Your task to perform on an android device: change text size in settings app Image 0: 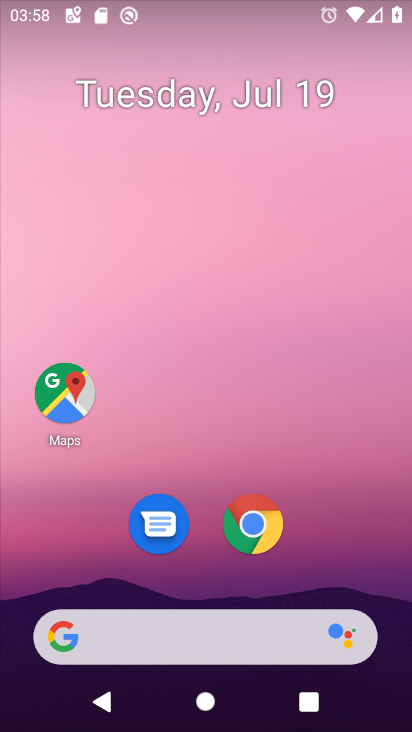
Step 0: drag from (313, 530) to (321, 55)
Your task to perform on an android device: change text size in settings app Image 1: 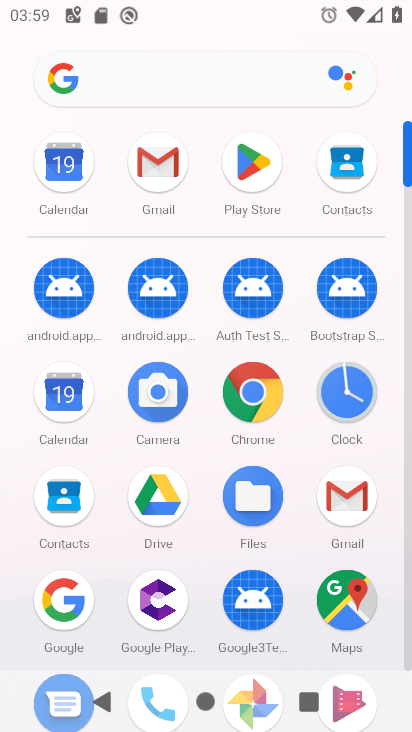
Step 1: drag from (287, 530) to (319, 129)
Your task to perform on an android device: change text size in settings app Image 2: 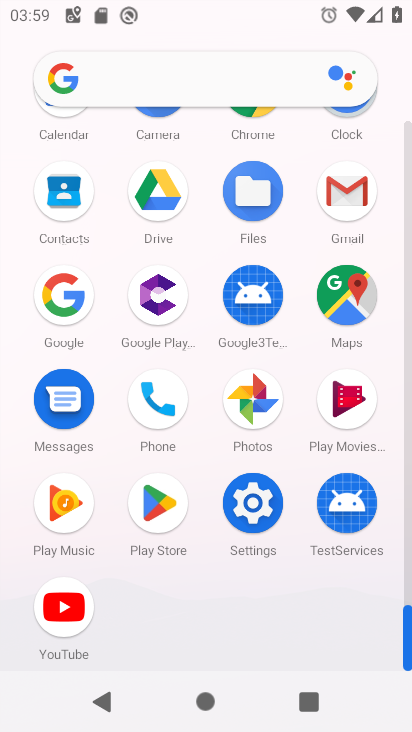
Step 2: click (242, 501)
Your task to perform on an android device: change text size in settings app Image 3: 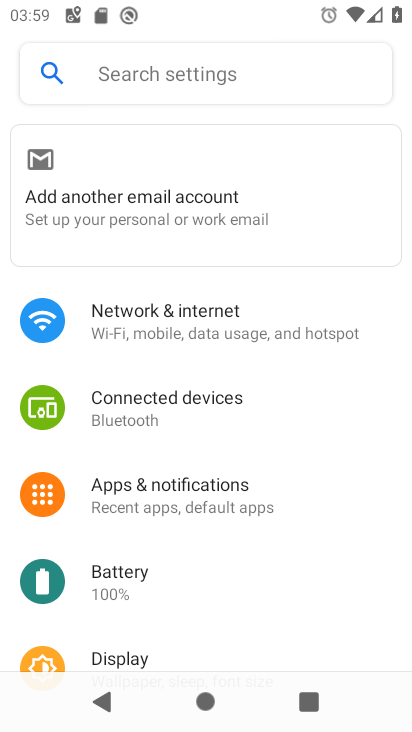
Step 3: drag from (241, 585) to (275, 254)
Your task to perform on an android device: change text size in settings app Image 4: 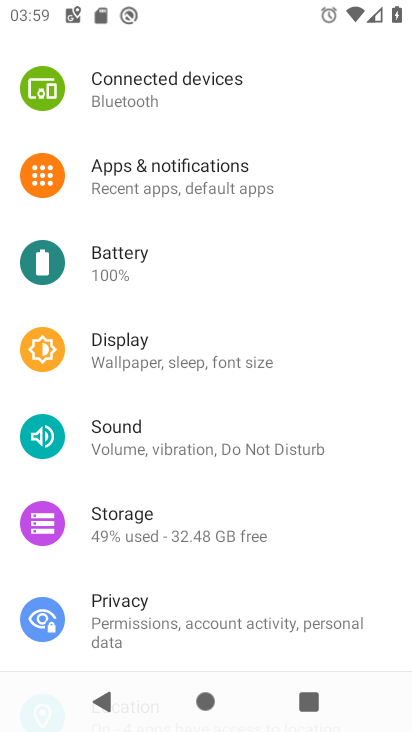
Step 4: click (229, 348)
Your task to perform on an android device: change text size in settings app Image 5: 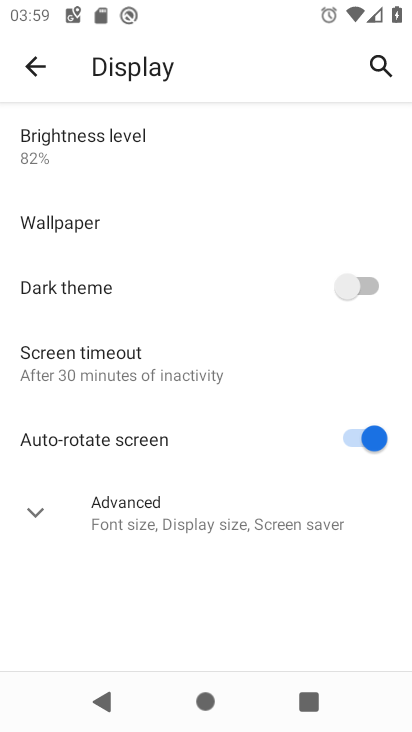
Step 5: click (32, 509)
Your task to perform on an android device: change text size in settings app Image 6: 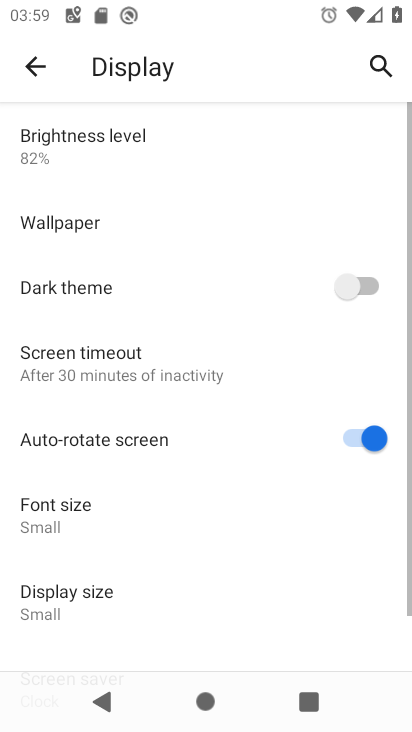
Step 6: drag from (177, 388) to (194, 169)
Your task to perform on an android device: change text size in settings app Image 7: 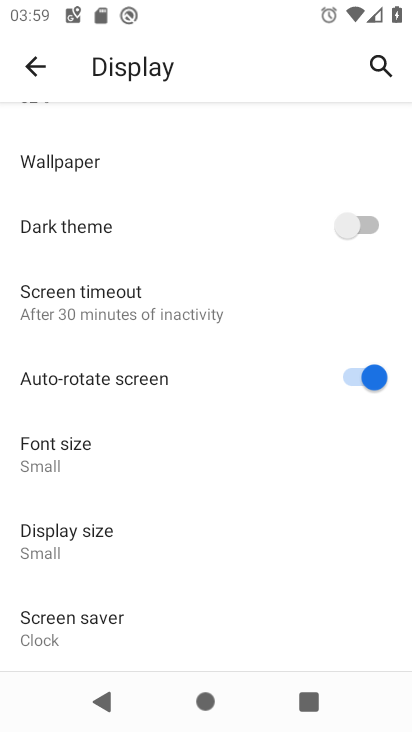
Step 7: click (73, 453)
Your task to perform on an android device: change text size in settings app Image 8: 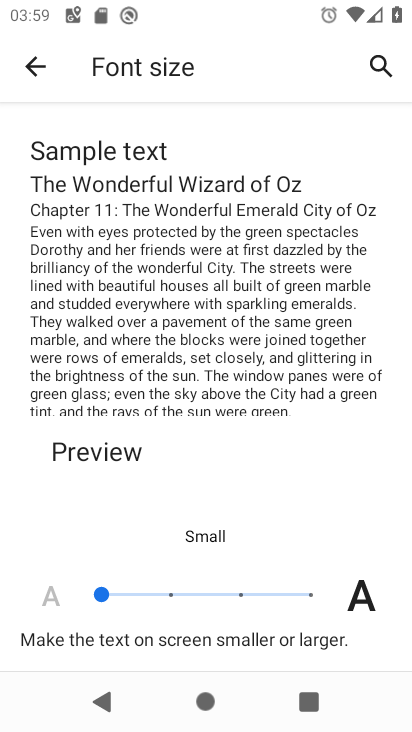
Step 8: click (168, 588)
Your task to perform on an android device: change text size in settings app Image 9: 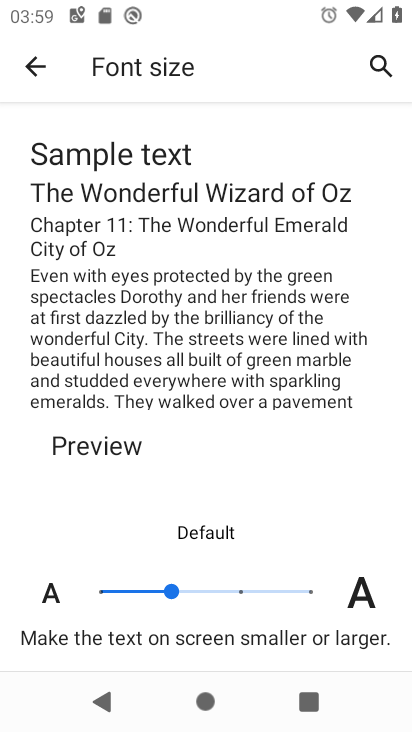
Step 9: click (44, 69)
Your task to perform on an android device: change text size in settings app Image 10: 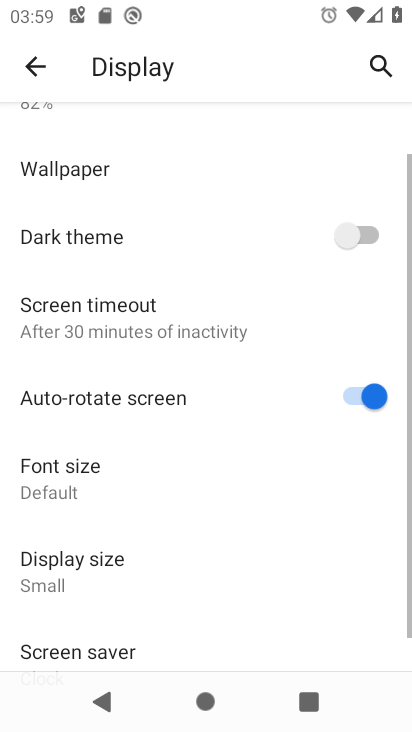
Step 10: click (44, 71)
Your task to perform on an android device: change text size in settings app Image 11: 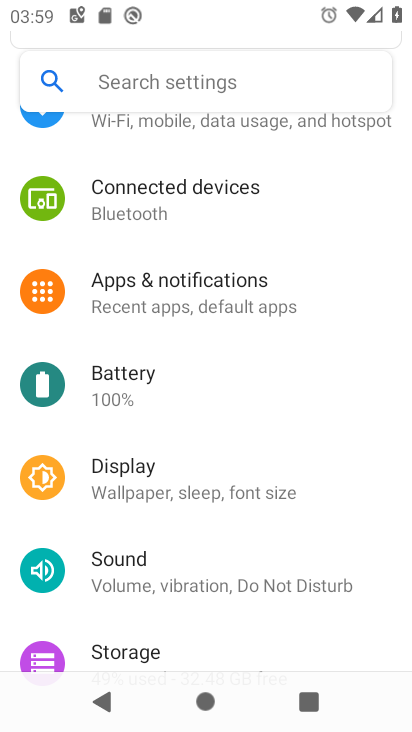
Step 11: task complete